Your task to perform on an android device: delete browsing data in the chrome app Image 0: 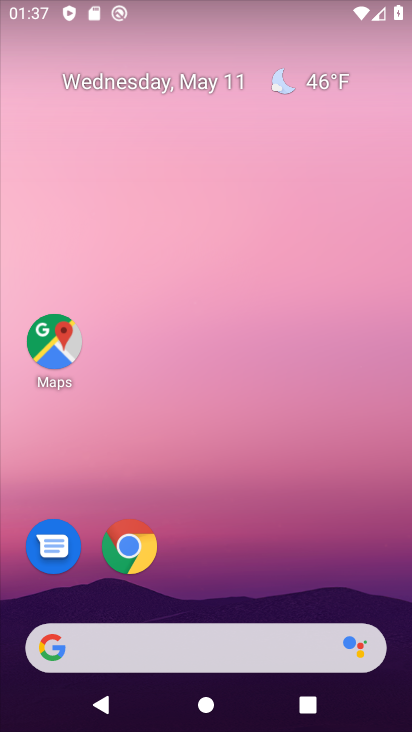
Step 0: drag from (191, 555) to (234, 70)
Your task to perform on an android device: delete browsing data in the chrome app Image 1: 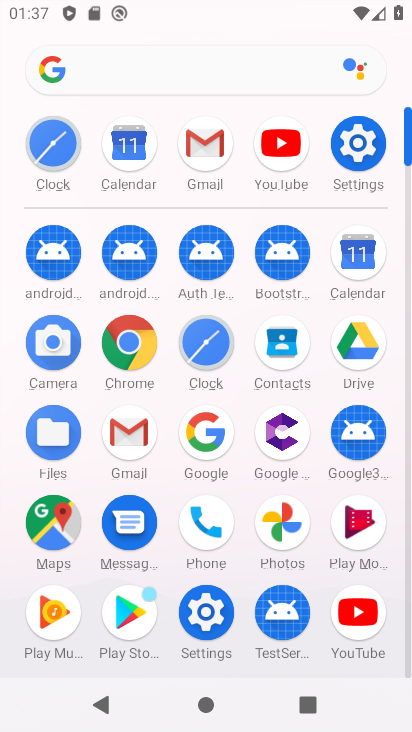
Step 1: click (126, 335)
Your task to perform on an android device: delete browsing data in the chrome app Image 2: 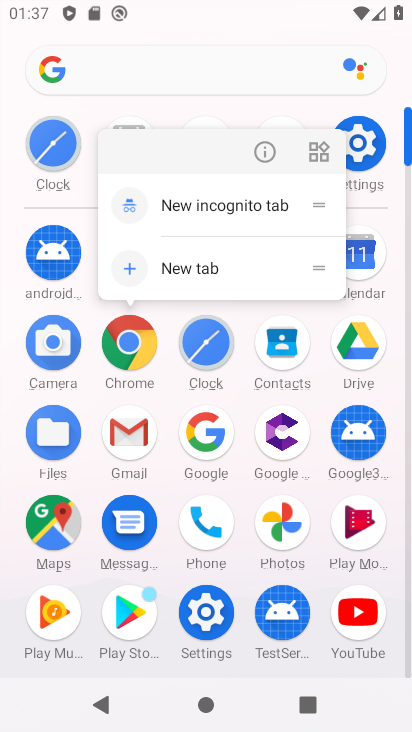
Step 2: click (261, 151)
Your task to perform on an android device: delete browsing data in the chrome app Image 3: 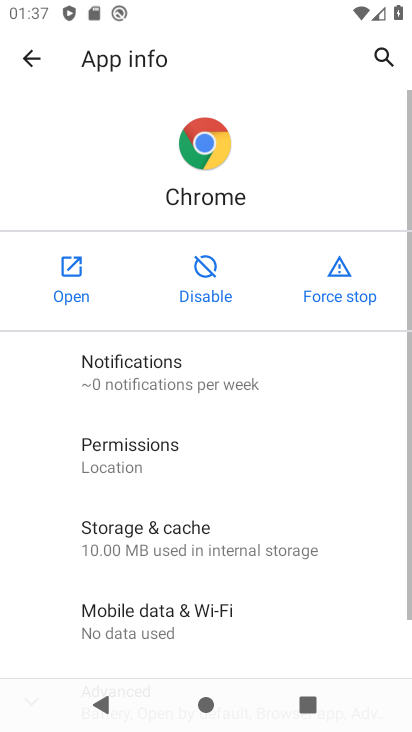
Step 3: click (65, 255)
Your task to perform on an android device: delete browsing data in the chrome app Image 4: 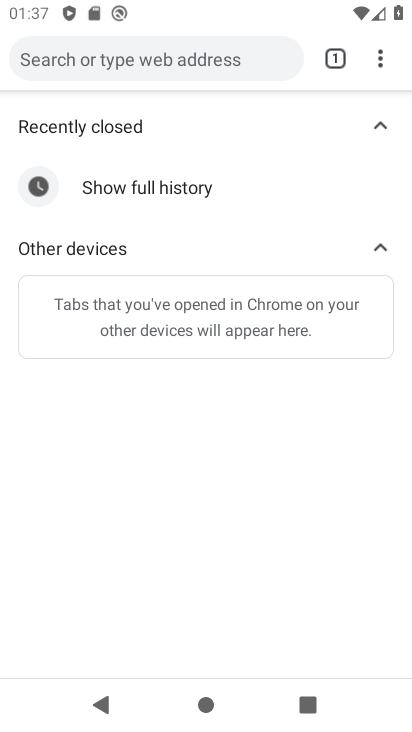
Step 4: click (177, 613)
Your task to perform on an android device: delete browsing data in the chrome app Image 5: 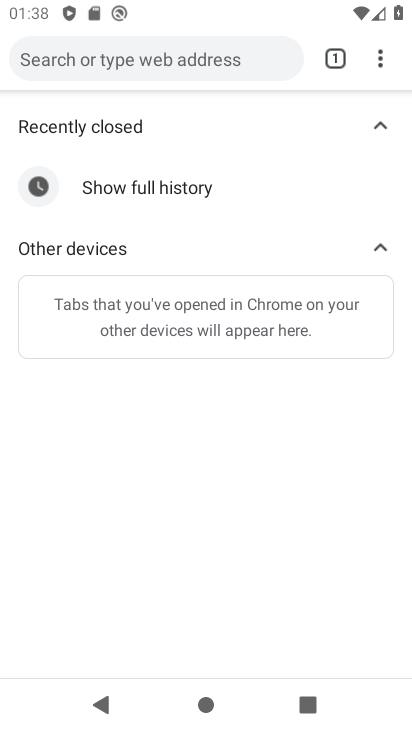
Step 5: drag from (381, 65) to (208, 333)
Your task to perform on an android device: delete browsing data in the chrome app Image 6: 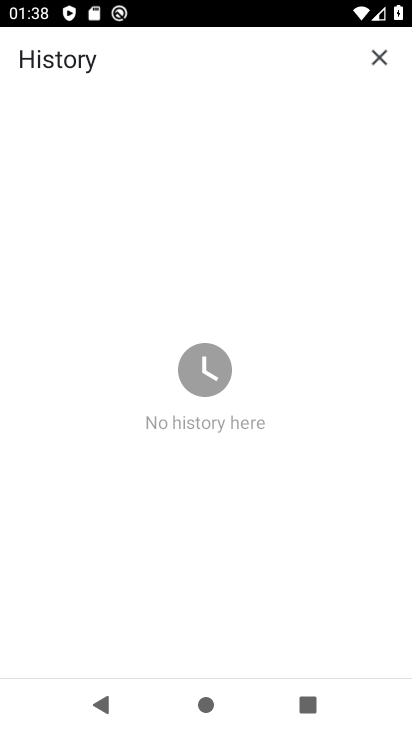
Step 6: drag from (184, 480) to (323, 171)
Your task to perform on an android device: delete browsing data in the chrome app Image 7: 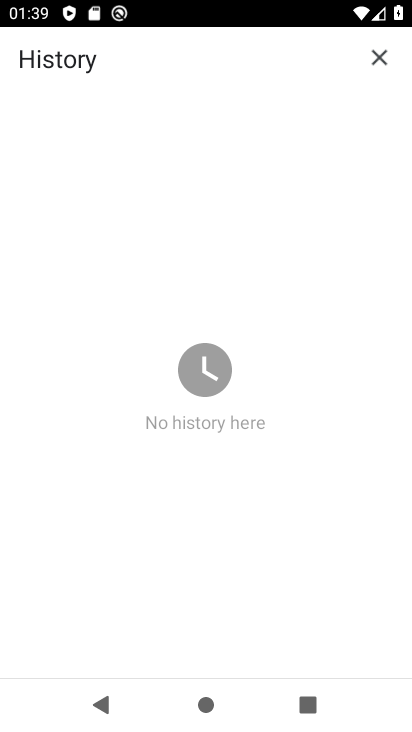
Step 7: drag from (202, 576) to (289, 363)
Your task to perform on an android device: delete browsing data in the chrome app Image 8: 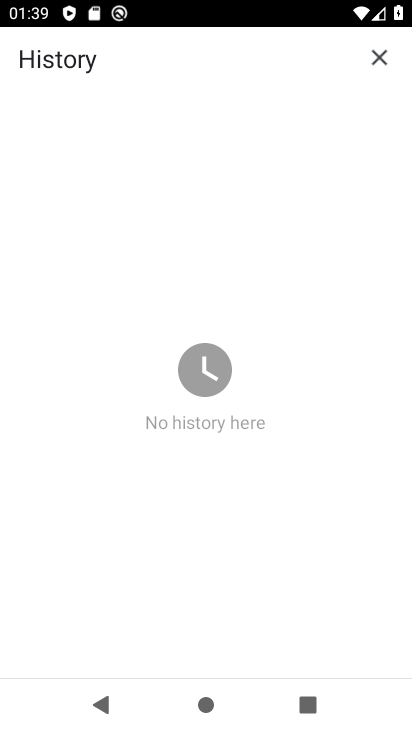
Step 8: click (370, 60)
Your task to perform on an android device: delete browsing data in the chrome app Image 9: 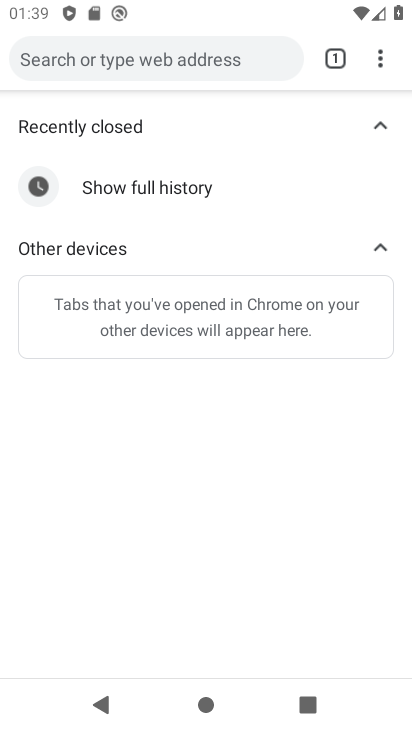
Step 9: click (382, 63)
Your task to perform on an android device: delete browsing data in the chrome app Image 10: 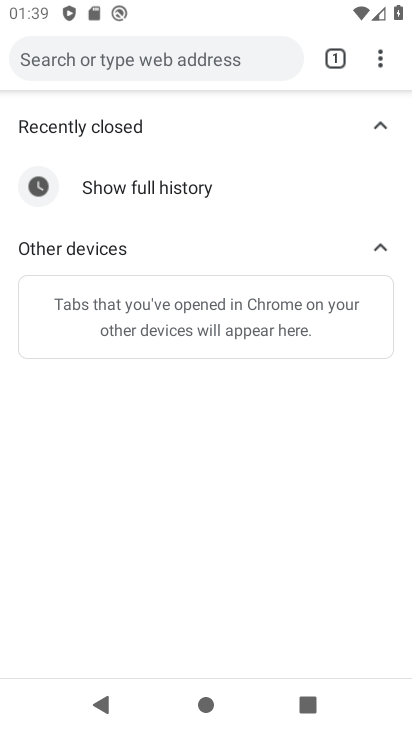
Step 10: task complete